Your task to perform on an android device: Go to CNN.com Image 0: 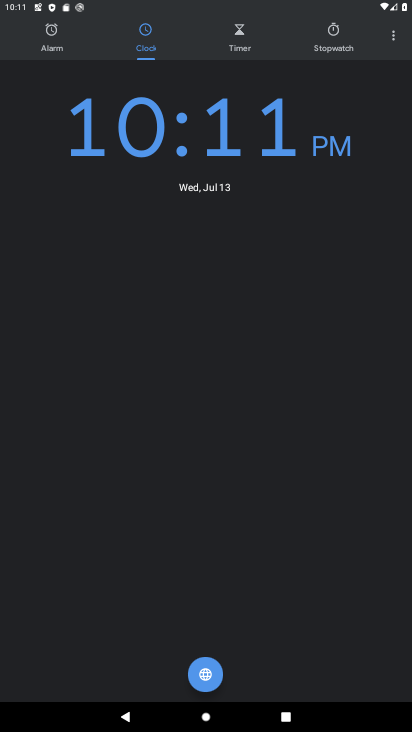
Step 0: press home button
Your task to perform on an android device: Go to CNN.com Image 1: 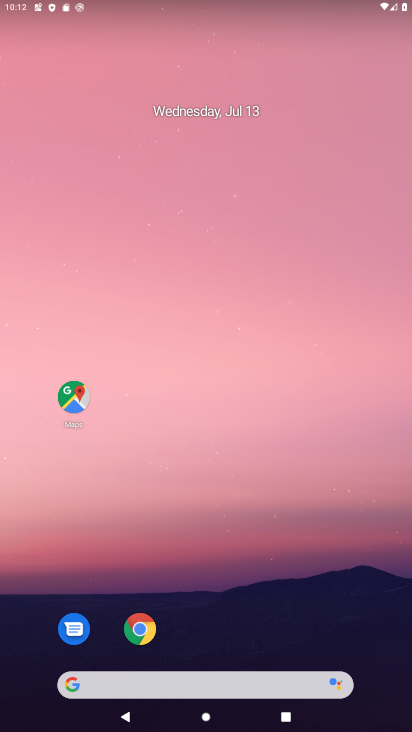
Step 1: click (137, 626)
Your task to perform on an android device: Go to CNN.com Image 2: 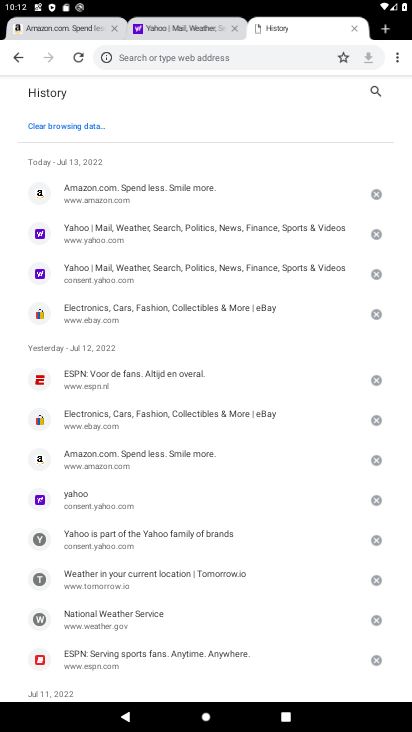
Step 2: click (167, 59)
Your task to perform on an android device: Go to CNN.com Image 3: 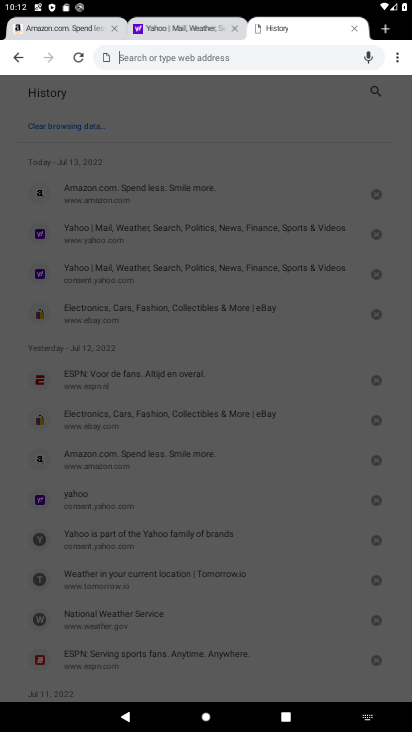
Step 3: type "cnn.com"
Your task to perform on an android device: Go to CNN.com Image 4: 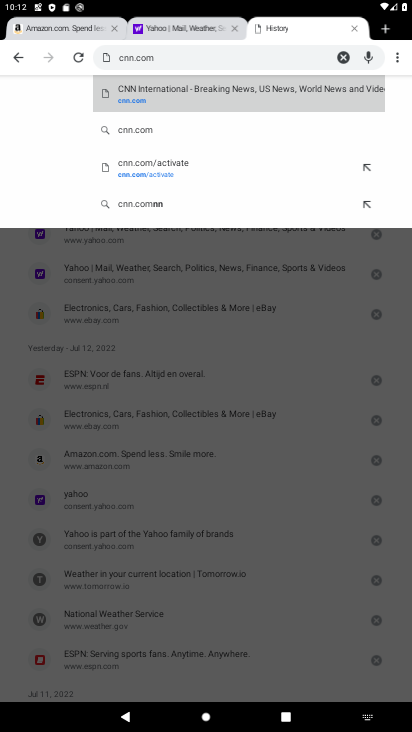
Step 4: click (165, 93)
Your task to perform on an android device: Go to CNN.com Image 5: 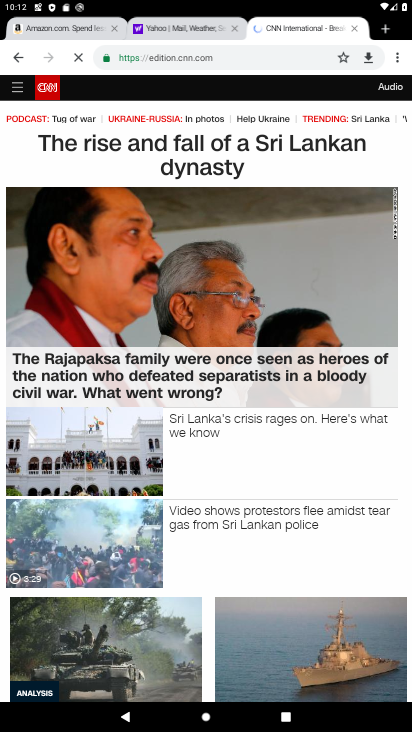
Step 5: drag from (209, 602) to (217, 253)
Your task to perform on an android device: Go to CNN.com Image 6: 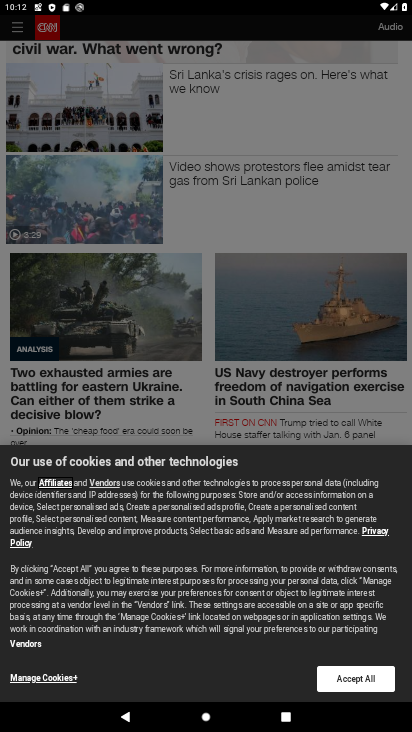
Step 6: click (359, 677)
Your task to perform on an android device: Go to CNN.com Image 7: 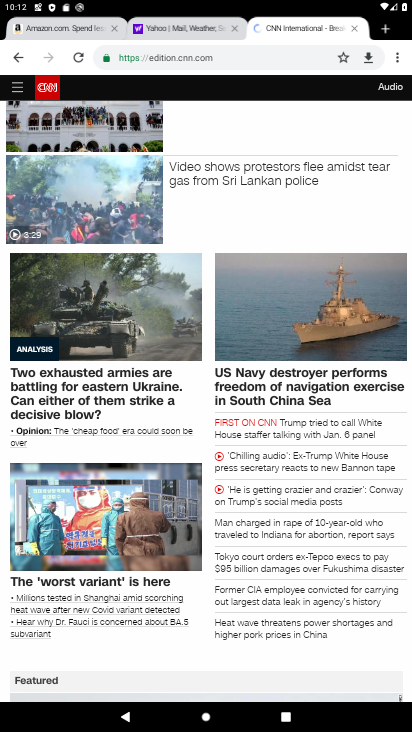
Step 7: task complete